Your task to perform on an android device: Go to privacy settings Image 0: 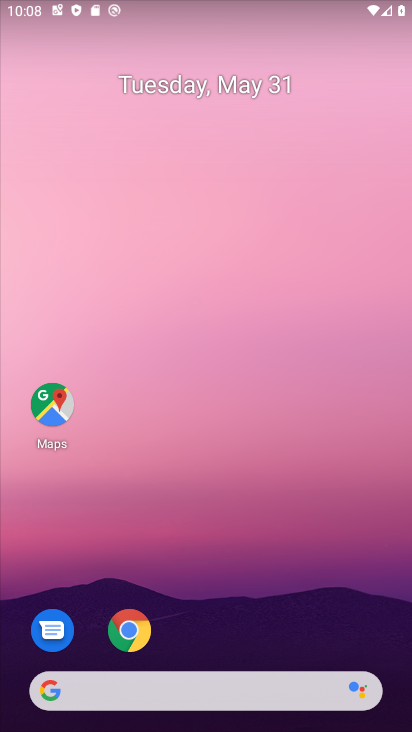
Step 0: drag from (258, 599) to (277, 232)
Your task to perform on an android device: Go to privacy settings Image 1: 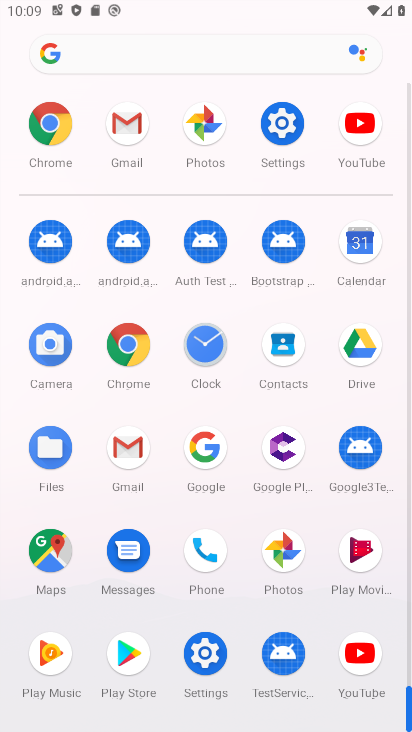
Step 1: click (289, 138)
Your task to perform on an android device: Go to privacy settings Image 2: 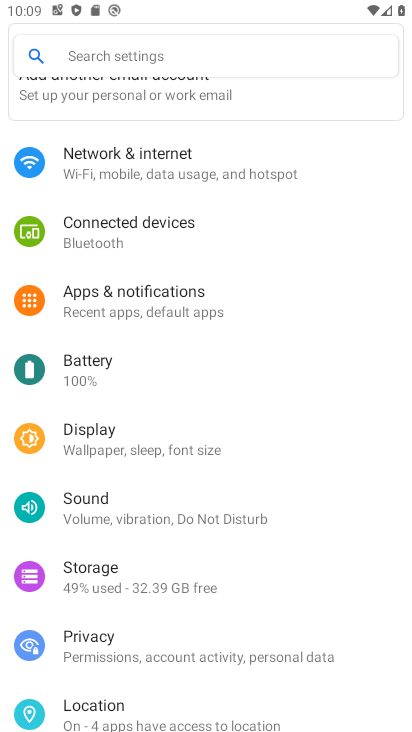
Step 2: click (169, 652)
Your task to perform on an android device: Go to privacy settings Image 3: 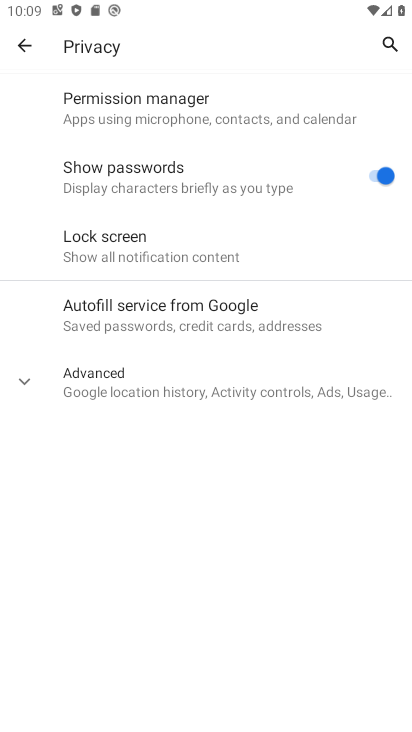
Step 3: task complete